Your task to perform on an android device: Open calendar and show me the first week of next month Image 0: 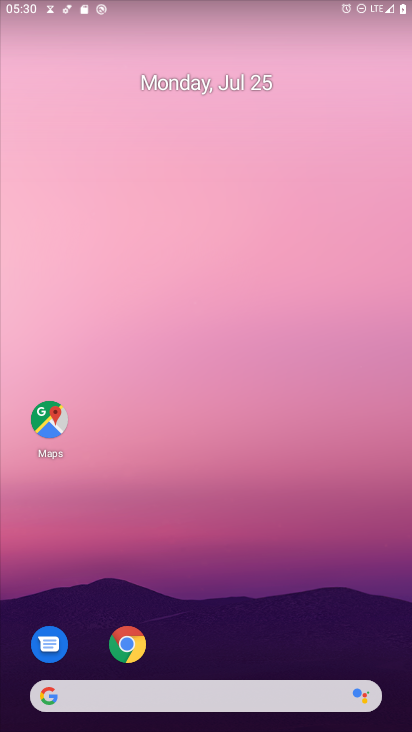
Step 0: press home button
Your task to perform on an android device: Open calendar and show me the first week of next month Image 1: 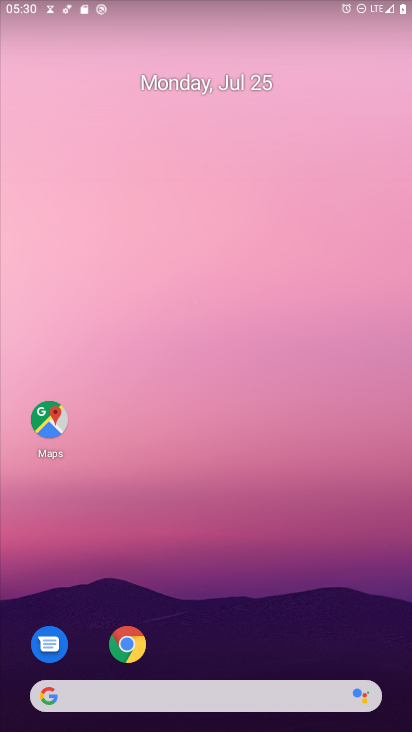
Step 1: drag from (281, 619) to (298, 90)
Your task to perform on an android device: Open calendar and show me the first week of next month Image 2: 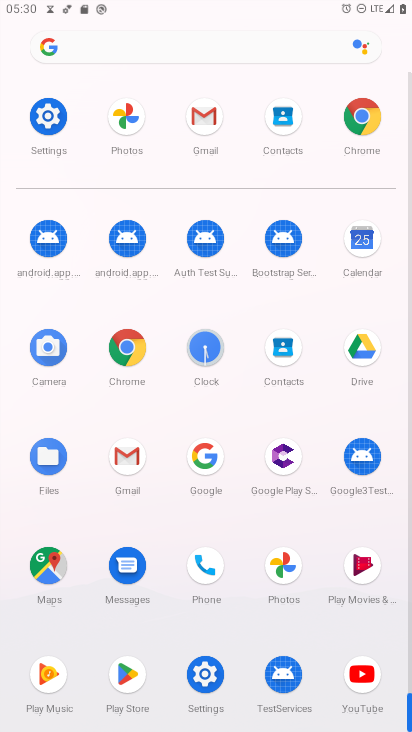
Step 2: click (368, 245)
Your task to perform on an android device: Open calendar and show me the first week of next month Image 3: 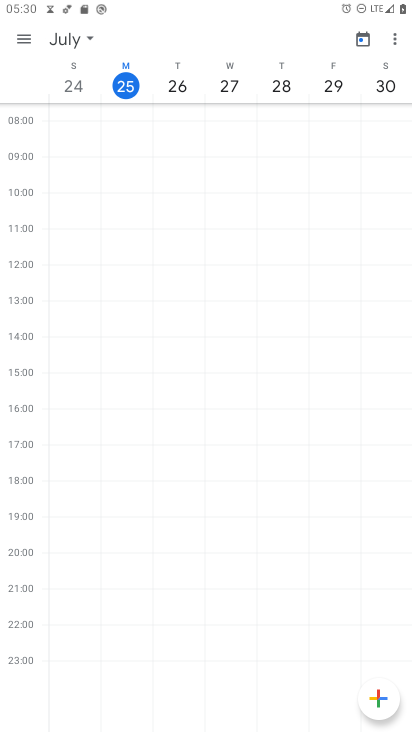
Step 3: task complete